Your task to perform on an android device: Open battery settings Image 0: 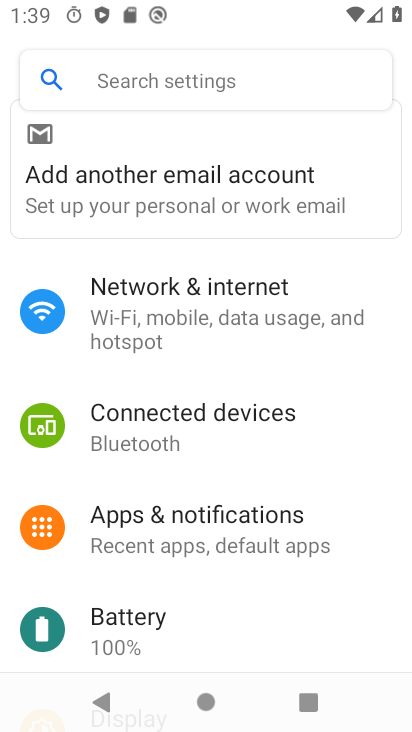
Step 0: click (112, 626)
Your task to perform on an android device: Open battery settings Image 1: 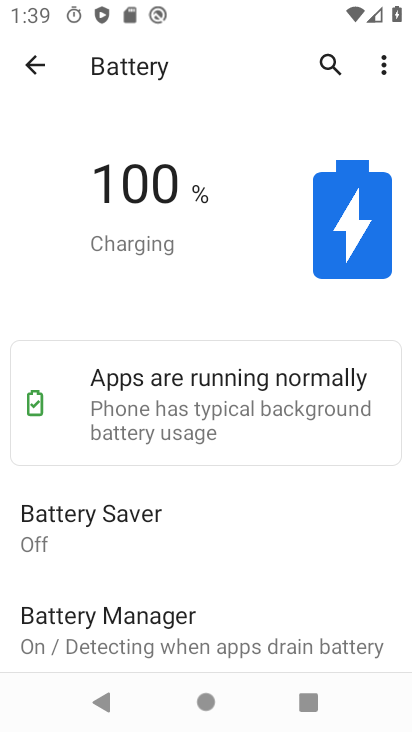
Step 1: task complete